Your task to perform on an android device: turn notification dots off Image 0: 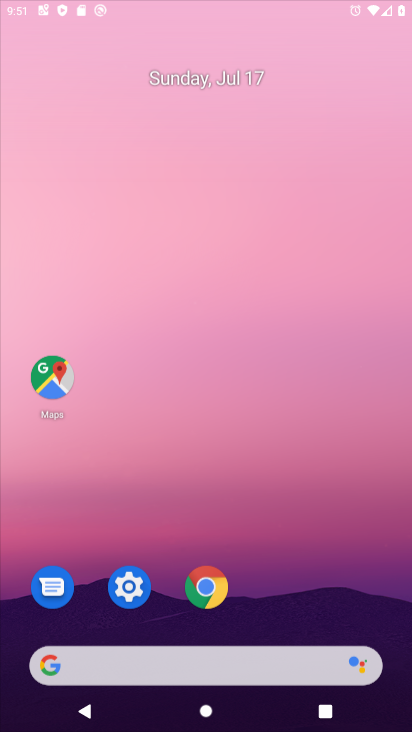
Step 0: click (147, 84)
Your task to perform on an android device: turn notification dots off Image 1: 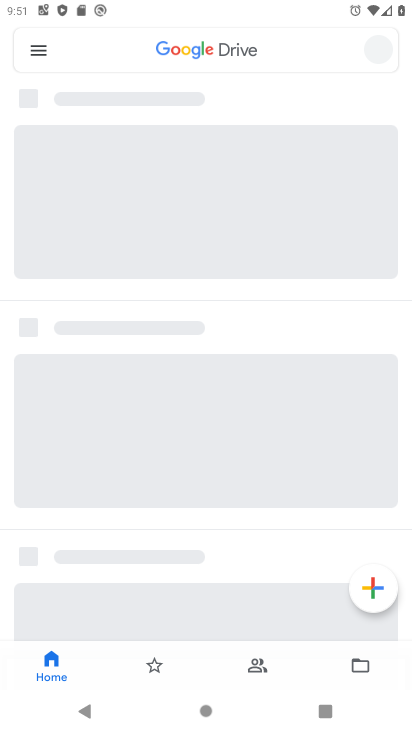
Step 1: drag from (192, 556) to (133, 96)
Your task to perform on an android device: turn notification dots off Image 2: 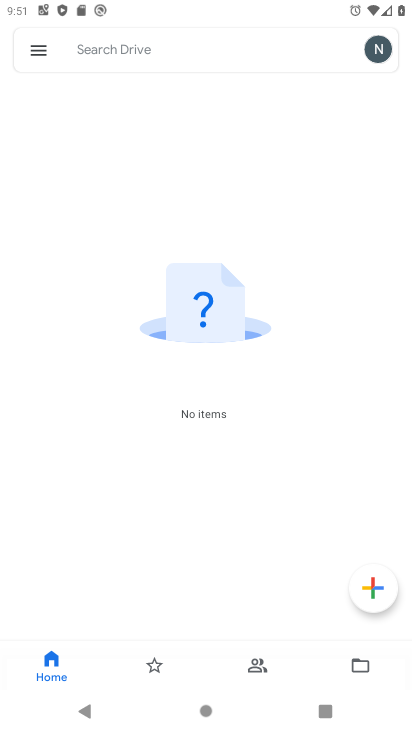
Step 2: press back button
Your task to perform on an android device: turn notification dots off Image 3: 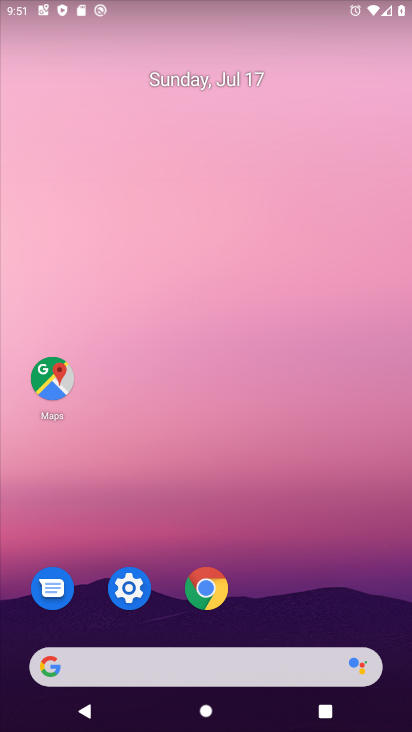
Step 3: drag from (306, 689) to (247, 229)
Your task to perform on an android device: turn notification dots off Image 4: 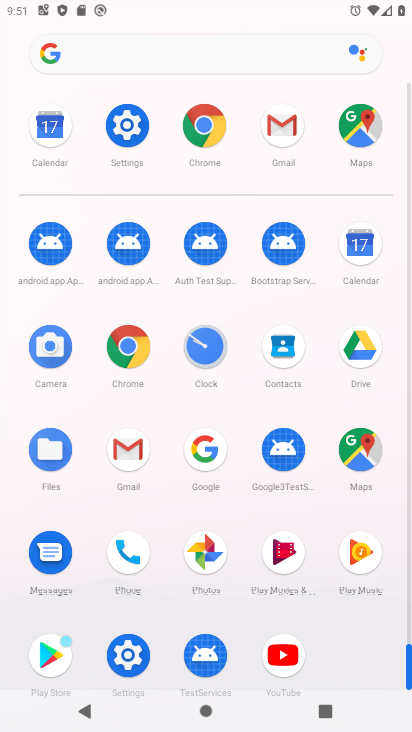
Step 4: drag from (235, 728) to (159, 164)
Your task to perform on an android device: turn notification dots off Image 5: 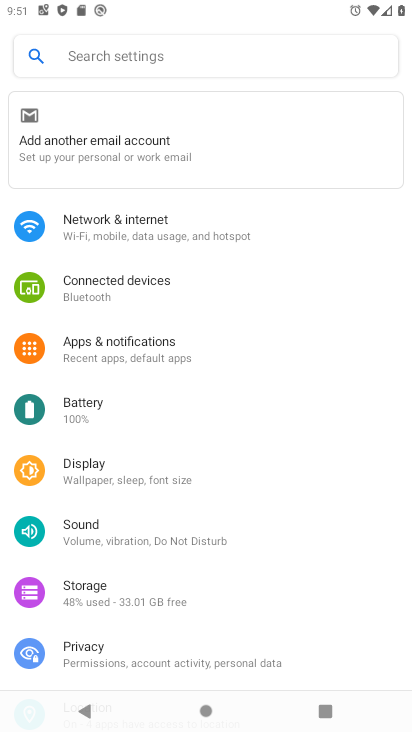
Step 5: click (102, 346)
Your task to perform on an android device: turn notification dots off Image 6: 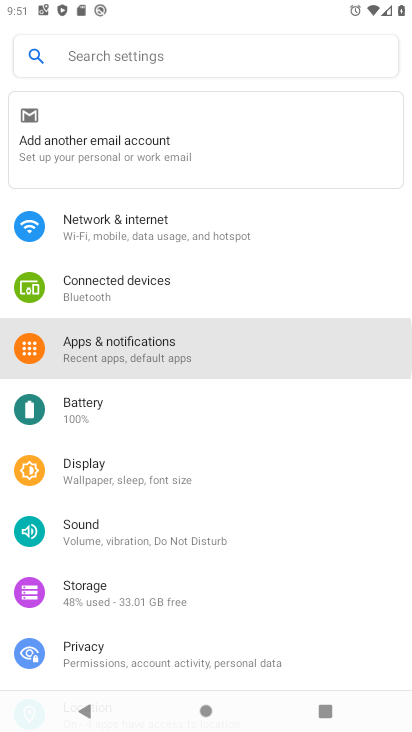
Step 6: click (111, 343)
Your task to perform on an android device: turn notification dots off Image 7: 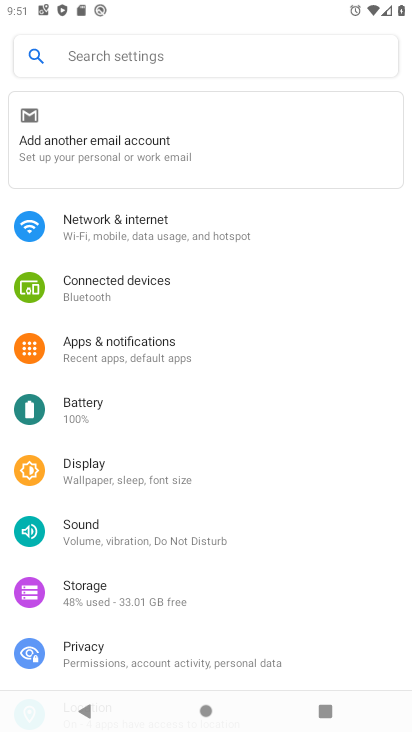
Step 7: click (114, 339)
Your task to perform on an android device: turn notification dots off Image 8: 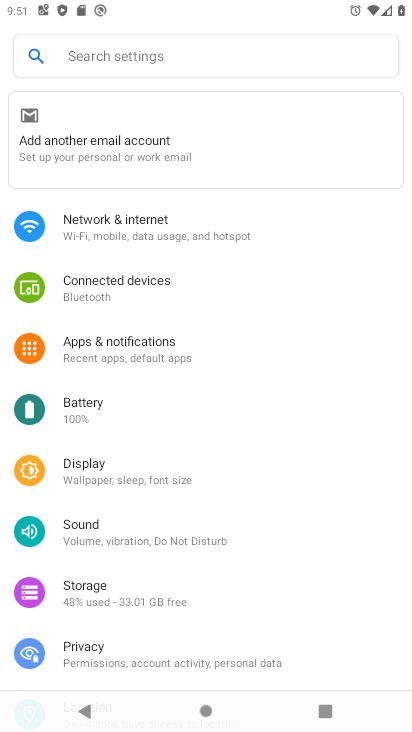
Step 8: click (115, 339)
Your task to perform on an android device: turn notification dots off Image 9: 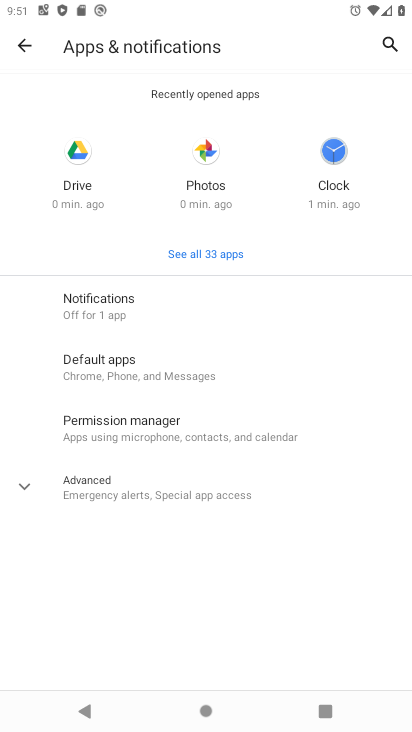
Step 9: click (99, 306)
Your task to perform on an android device: turn notification dots off Image 10: 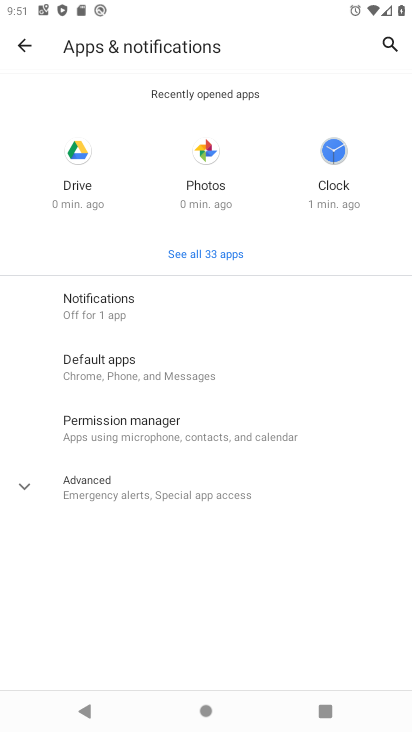
Step 10: click (100, 313)
Your task to perform on an android device: turn notification dots off Image 11: 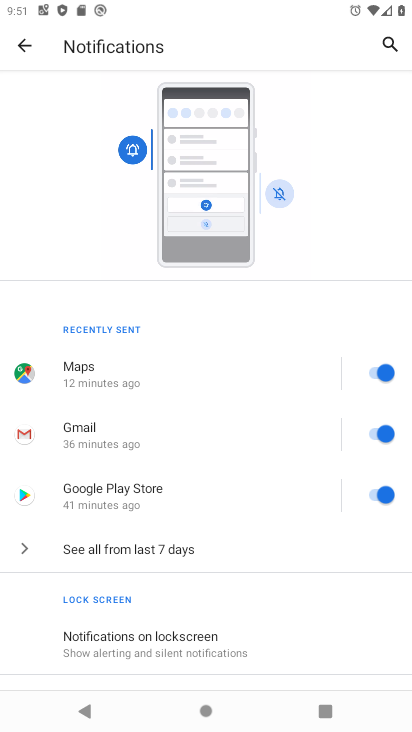
Step 11: drag from (182, 618) to (128, 235)
Your task to perform on an android device: turn notification dots off Image 12: 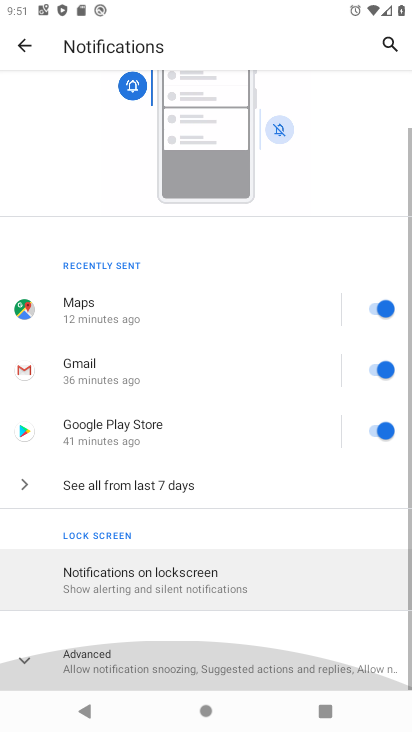
Step 12: drag from (222, 504) to (162, 286)
Your task to perform on an android device: turn notification dots off Image 13: 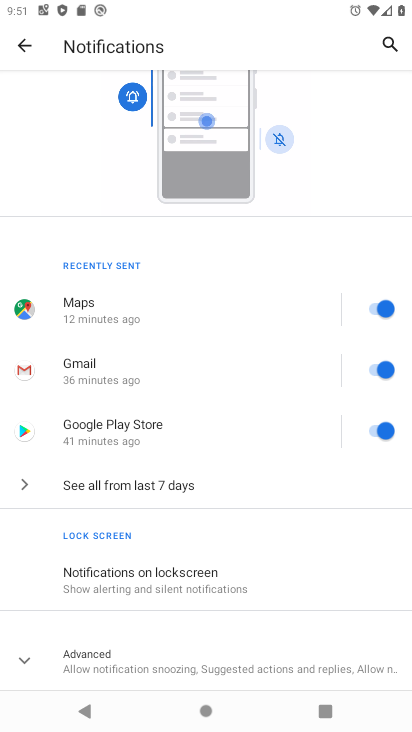
Step 13: click (97, 670)
Your task to perform on an android device: turn notification dots off Image 14: 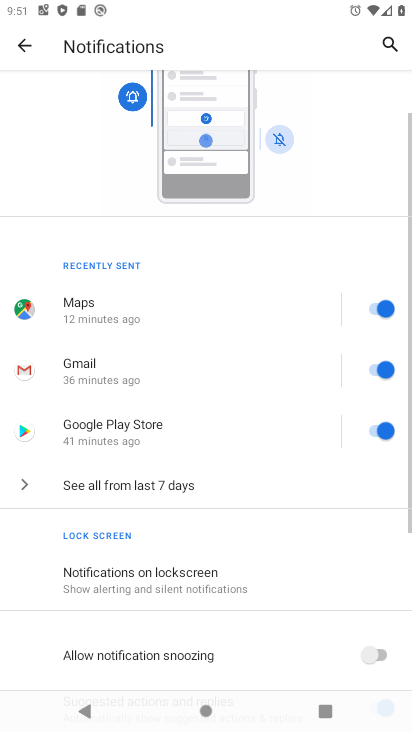
Step 14: drag from (179, 622) to (128, 263)
Your task to perform on an android device: turn notification dots off Image 15: 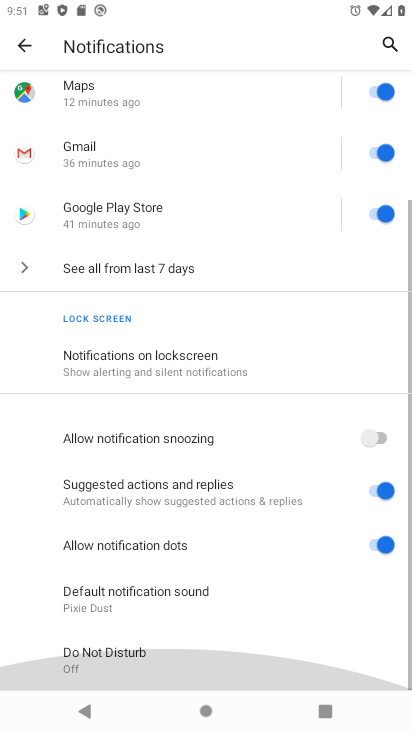
Step 15: drag from (236, 524) to (116, 212)
Your task to perform on an android device: turn notification dots off Image 16: 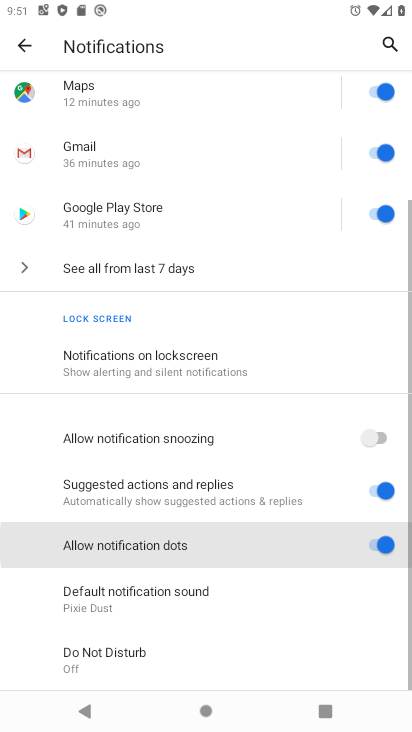
Step 16: drag from (233, 550) to (184, 265)
Your task to perform on an android device: turn notification dots off Image 17: 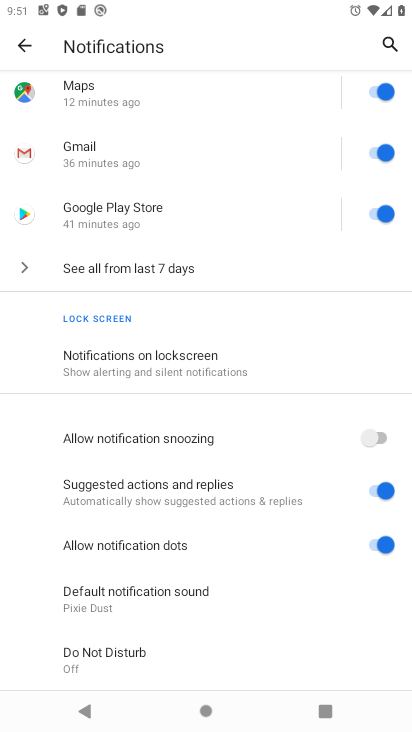
Step 17: click (386, 541)
Your task to perform on an android device: turn notification dots off Image 18: 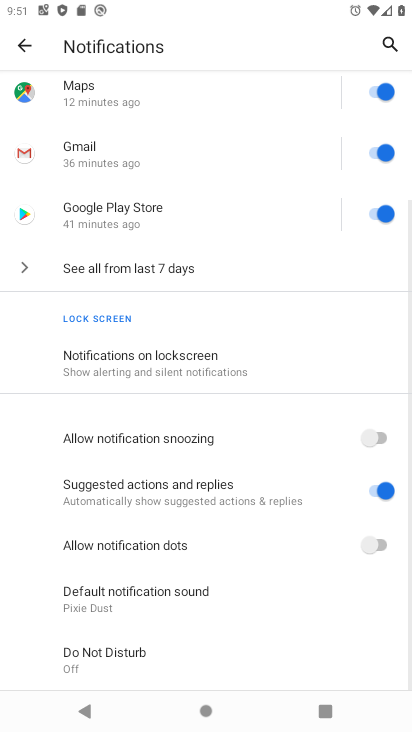
Step 18: task complete